Your task to perform on an android device: turn off location history Image 0: 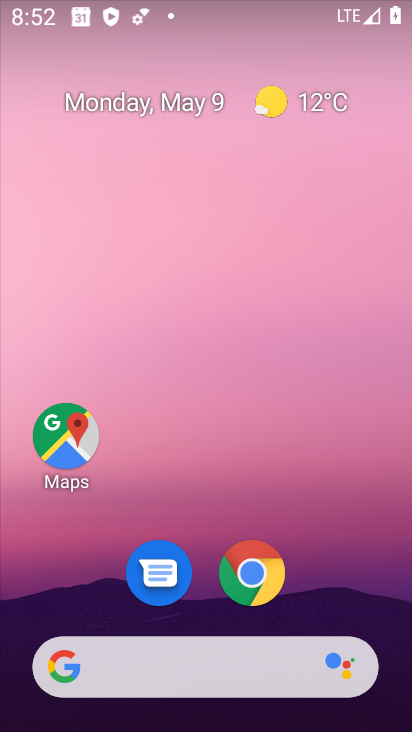
Step 0: drag from (265, 596) to (240, 223)
Your task to perform on an android device: turn off location history Image 1: 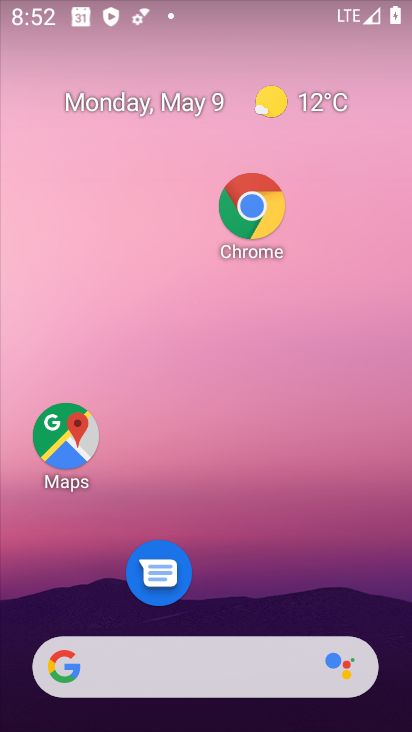
Step 1: drag from (240, 547) to (195, 123)
Your task to perform on an android device: turn off location history Image 2: 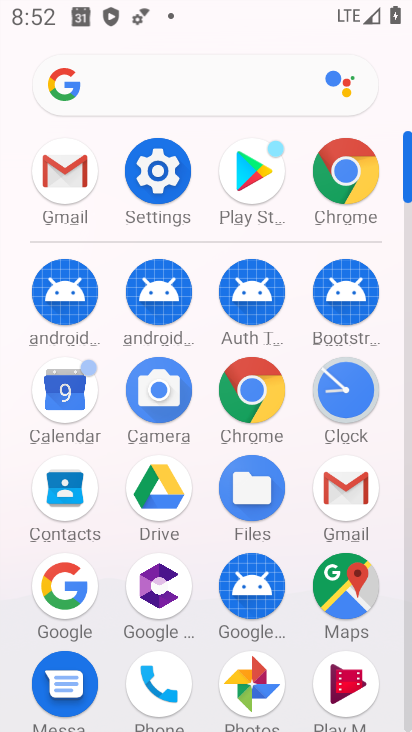
Step 2: click (148, 175)
Your task to perform on an android device: turn off location history Image 3: 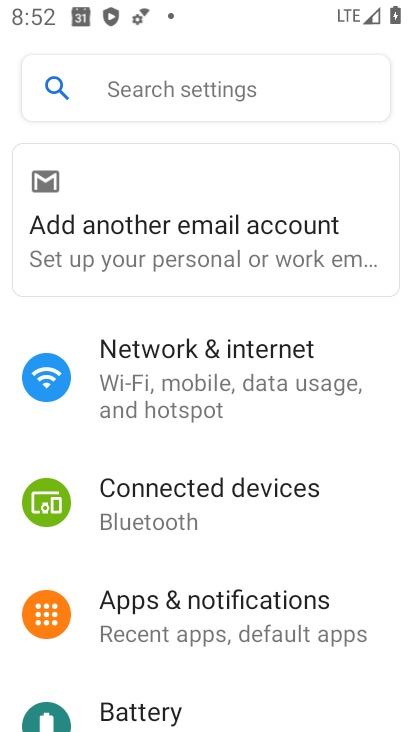
Step 3: drag from (301, 570) to (298, 77)
Your task to perform on an android device: turn off location history Image 4: 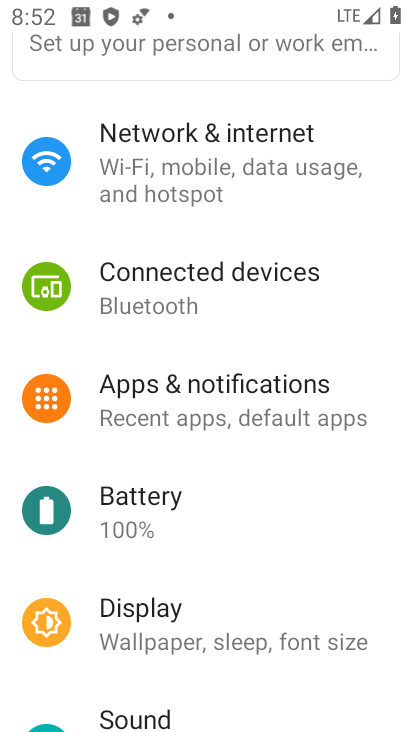
Step 4: drag from (288, 550) to (265, 410)
Your task to perform on an android device: turn off location history Image 5: 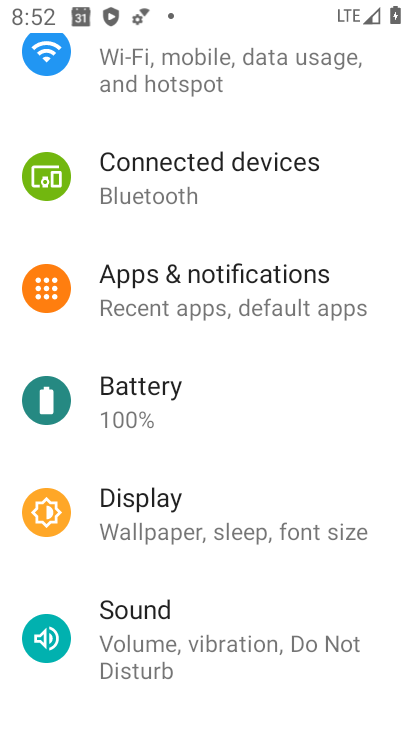
Step 5: drag from (252, 611) to (240, 362)
Your task to perform on an android device: turn off location history Image 6: 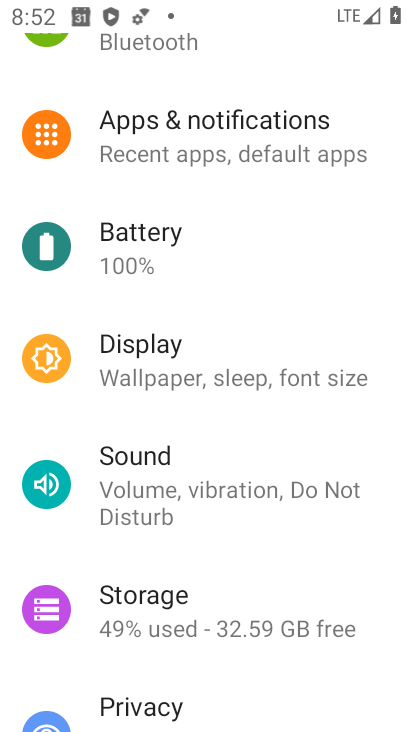
Step 6: drag from (260, 510) to (232, 150)
Your task to perform on an android device: turn off location history Image 7: 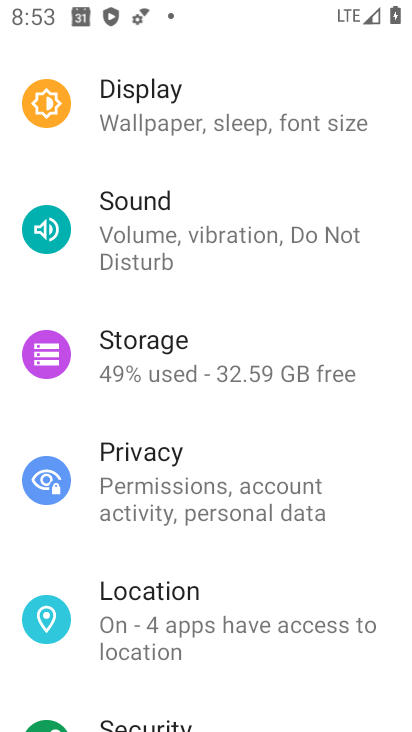
Step 7: drag from (229, 518) to (240, 189)
Your task to perform on an android device: turn off location history Image 8: 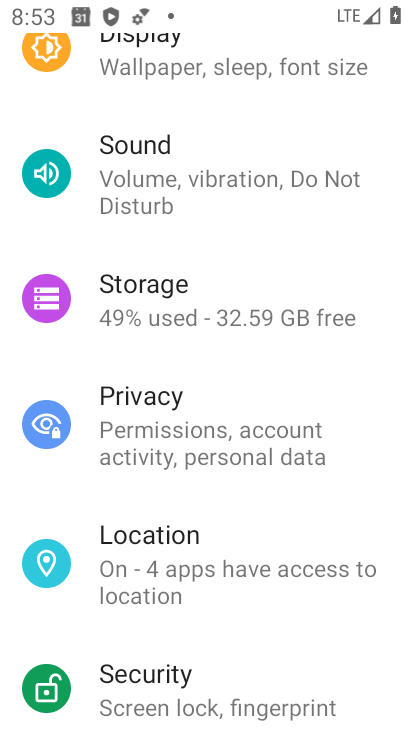
Step 8: click (188, 558)
Your task to perform on an android device: turn off location history Image 9: 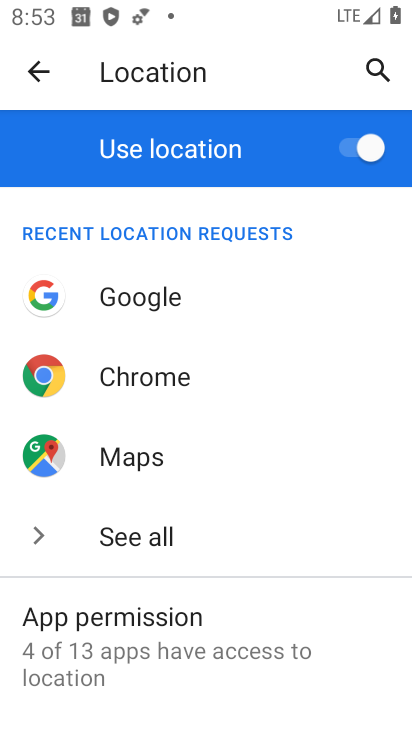
Step 9: drag from (188, 582) to (184, 462)
Your task to perform on an android device: turn off location history Image 10: 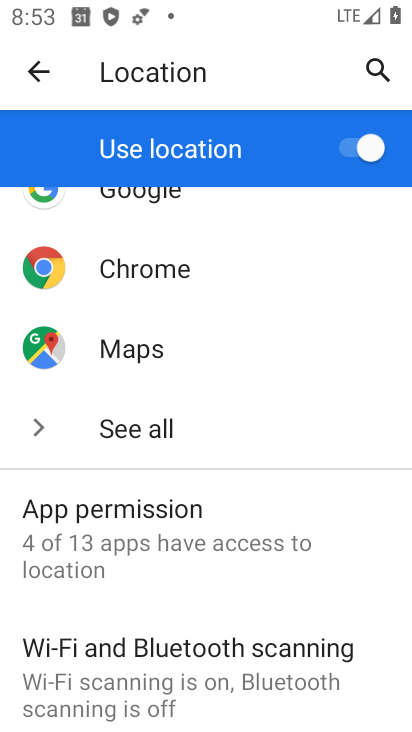
Step 10: drag from (206, 609) to (224, 461)
Your task to perform on an android device: turn off location history Image 11: 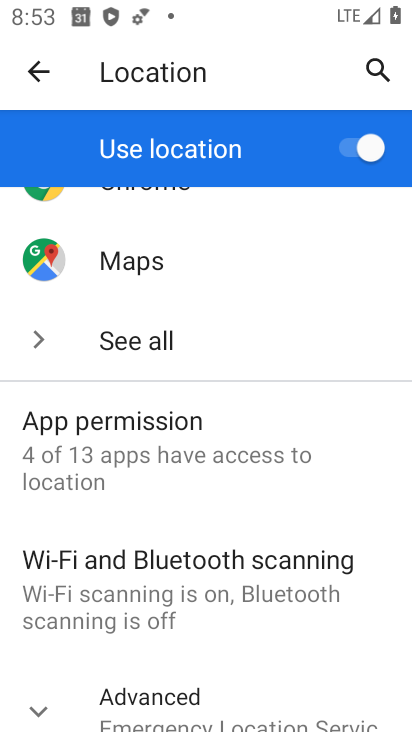
Step 11: click (127, 702)
Your task to perform on an android device: turn off location history Image 12: 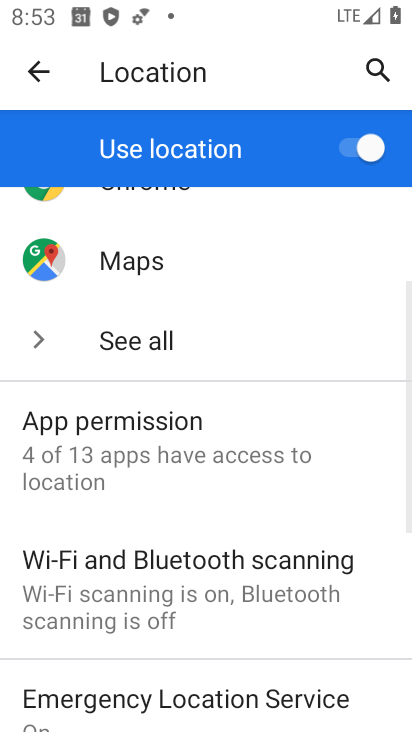
Step 12: drag from (127, 702) to (95, 251)
Your task to perform on an android device: turn off location history Image 13: 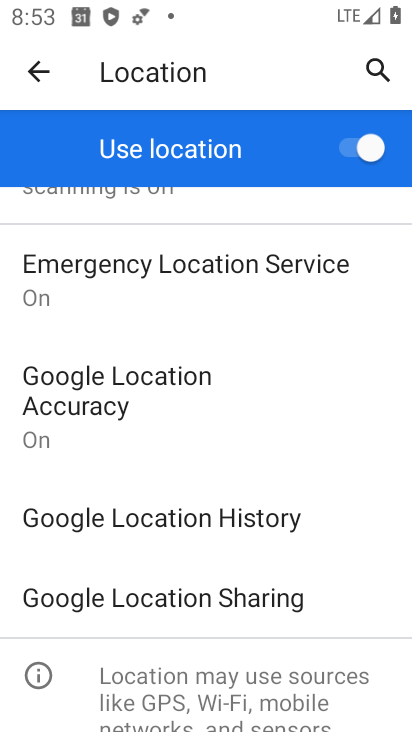
Step 13: click (197, 517)
Your task to perform on an android device: turn off location history Image 14: 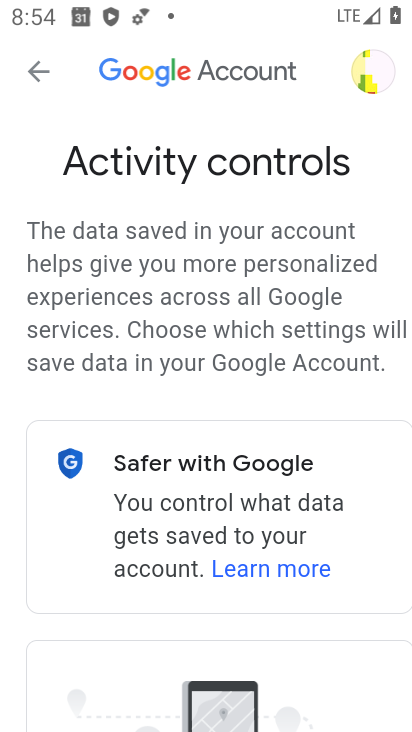
Step 14: task complete